Your task to perform on an android device: open sync settings in chrome Image 0: 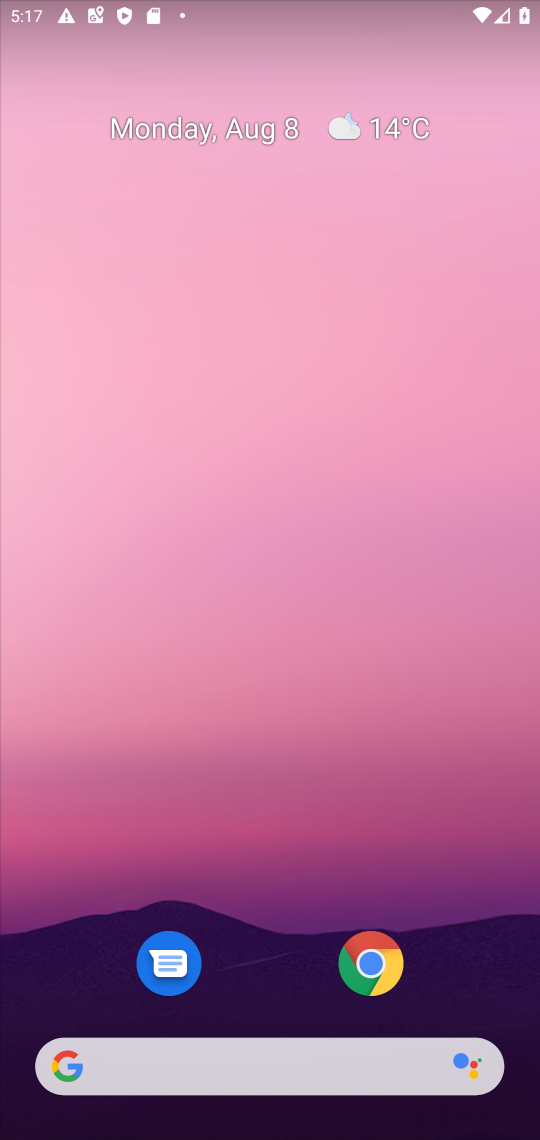
Step 0: click (387, 952)
Your task to perform on an android device: open sync settings in chrome Image 1: 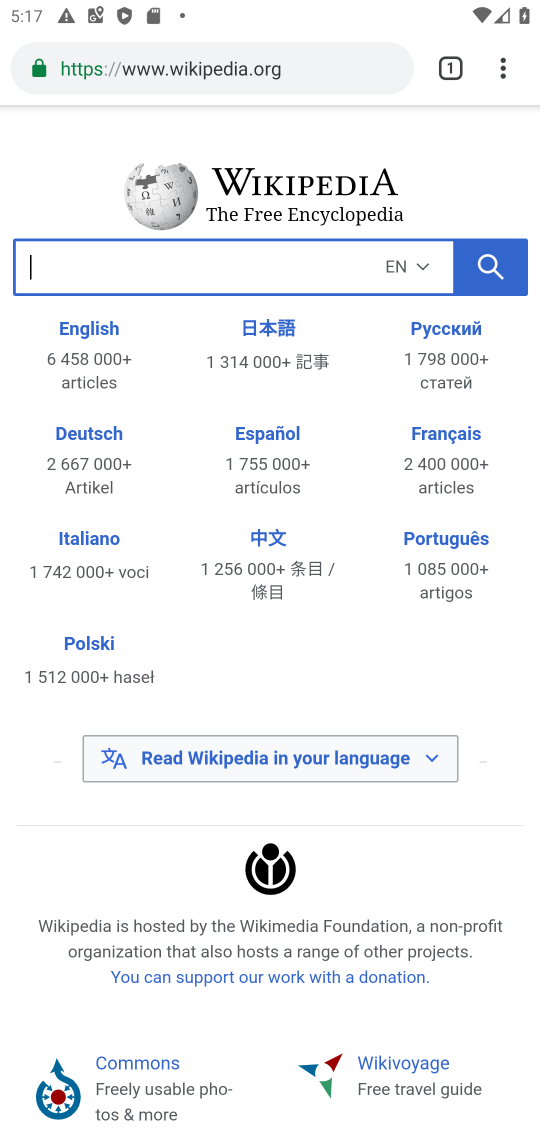
Step 1: click (494, 77)
Your task to perform on an android device: open sync settings in chrome Image 2: 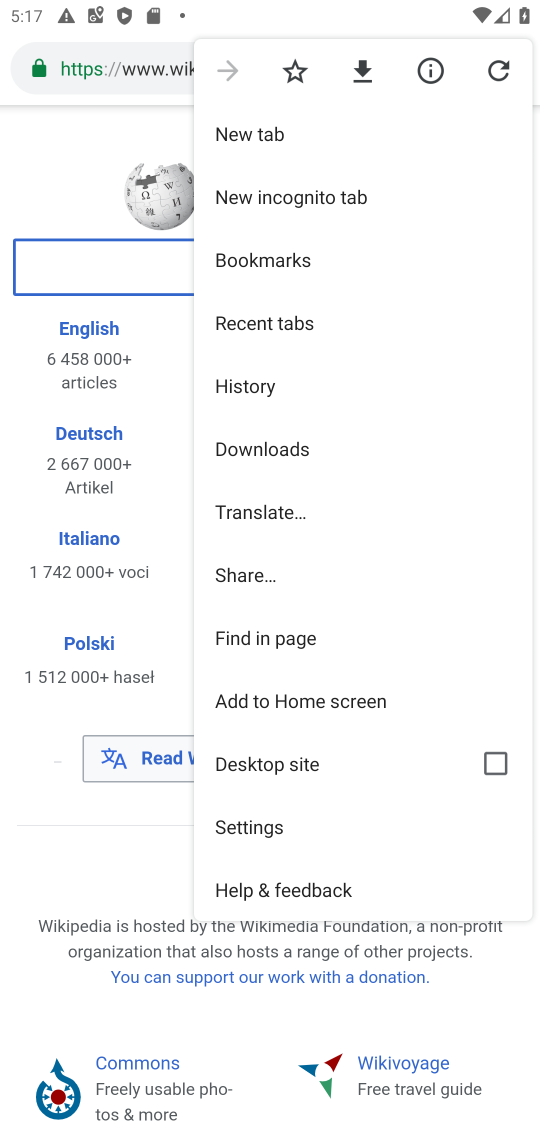
Step 2: click (272, 818)
Your task to perform on an android device: open sync settings in chrome Image 3: 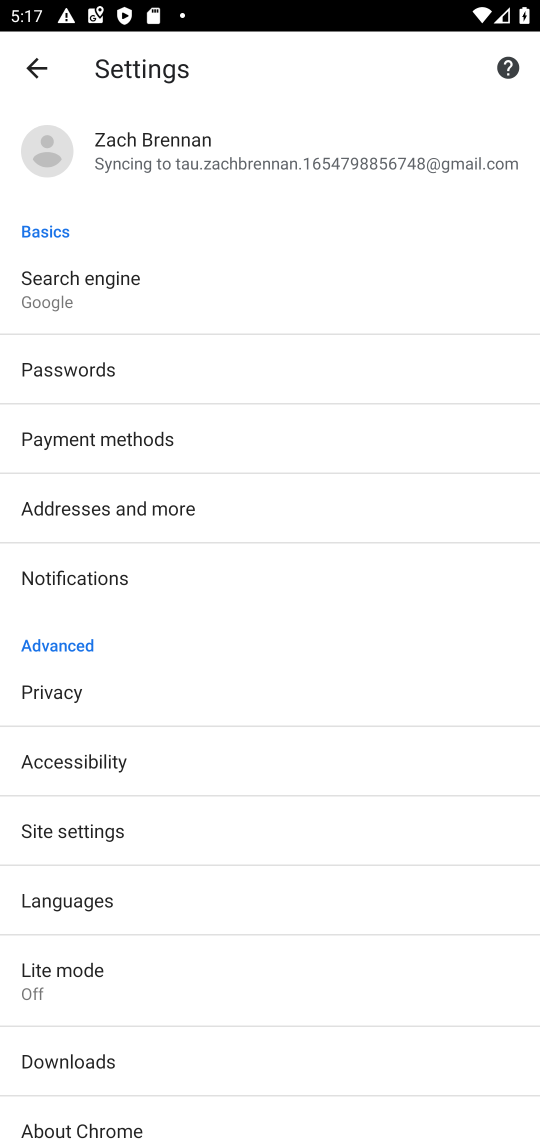
Step 3: click (169, 151)
Your task to perform on an android device: open sync settings in chrome Image 4: 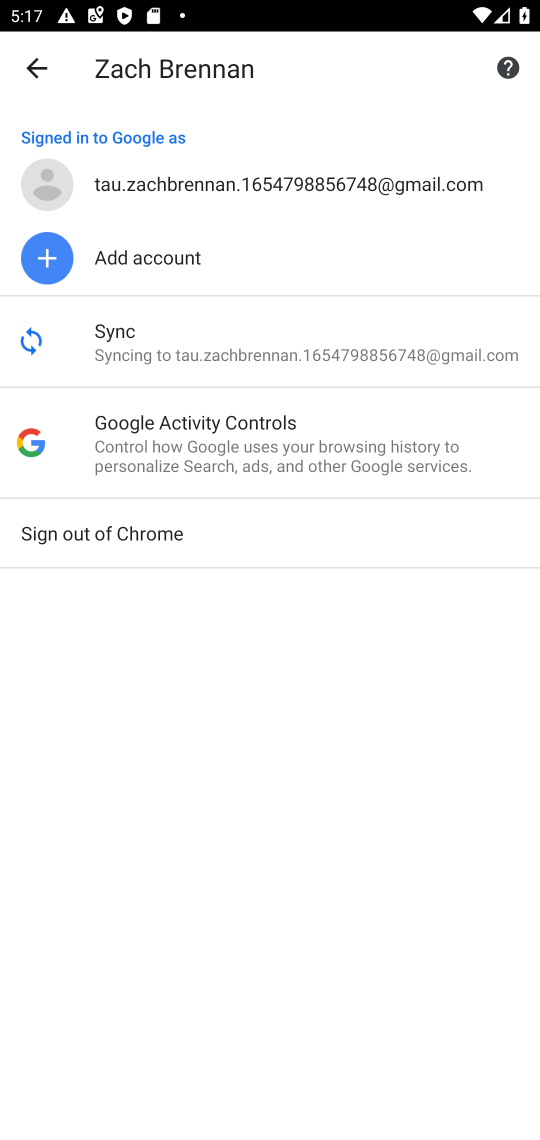
Step 4: click (141, 357)
Your task to perform on an android device: open sync settings in chrome Image 5: 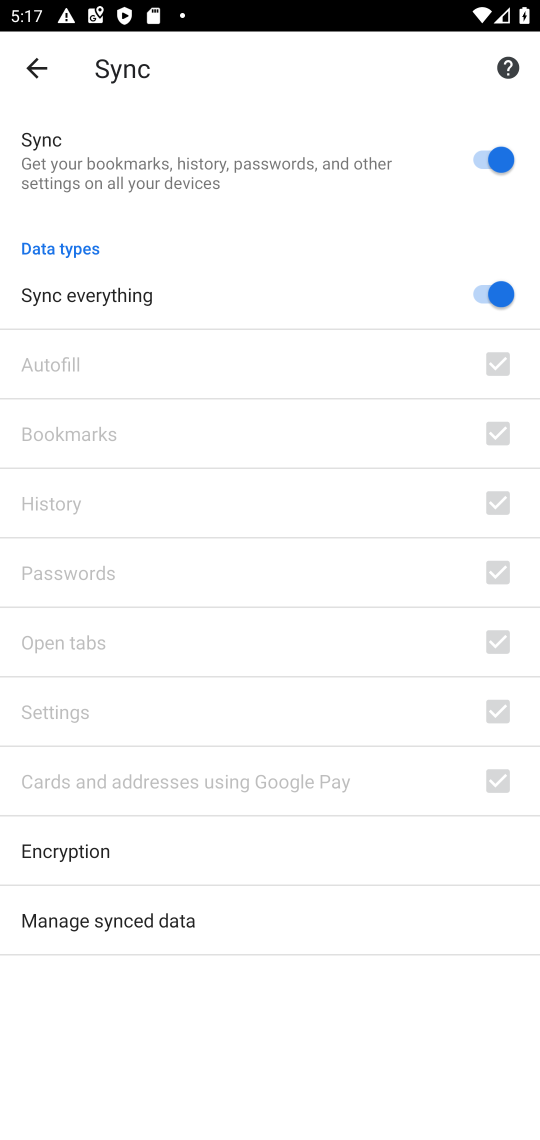
Step 5: task complete